Your task to perform on an android device: Open eBay Image 0: 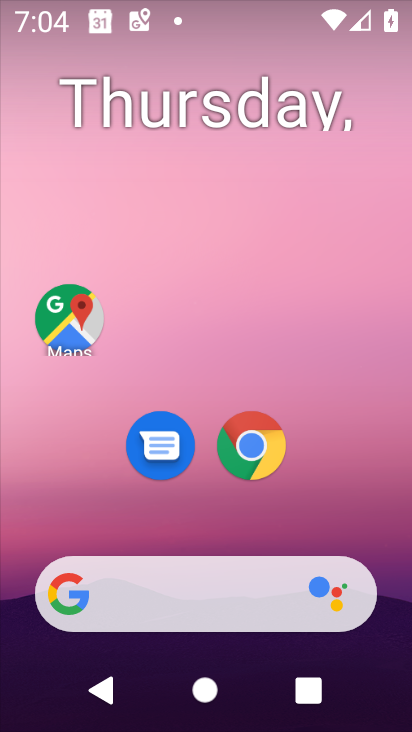
Step 0: drag from (388, 613) to (298, 29)
Your task to perform on an android device: Open eBay Image 1: 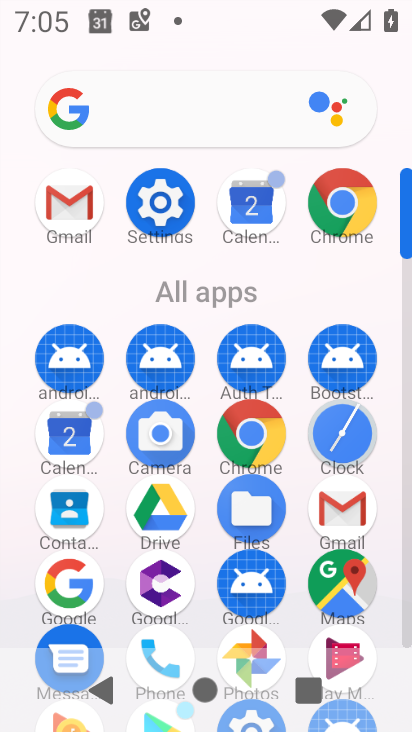
Step 1: click (66, 566)
Your task to perform on an android device: Open eBay Image 2: 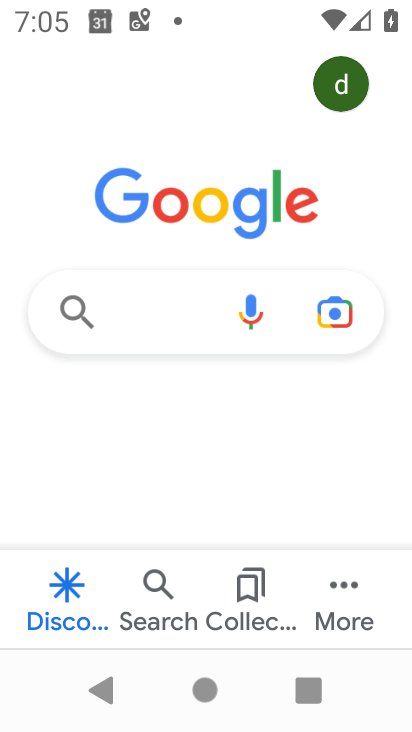
Step 2: click (135, 312)
Your task to perform on an android device: Open eBay Image 3: 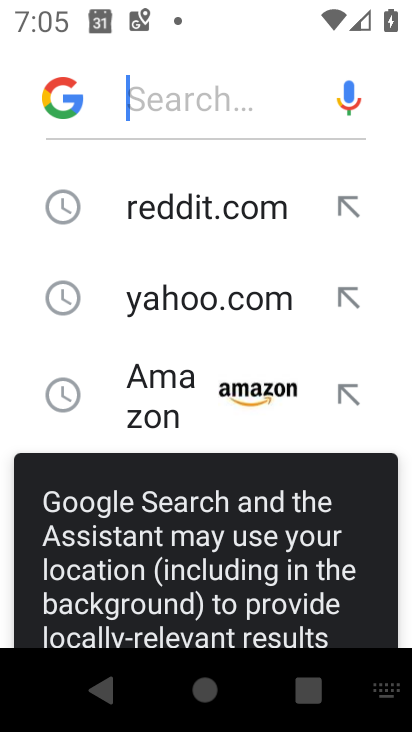
Step 3: drag from (125, 419) to (129, 118)
Your task to perform on an android device: Open eBay Image 4: 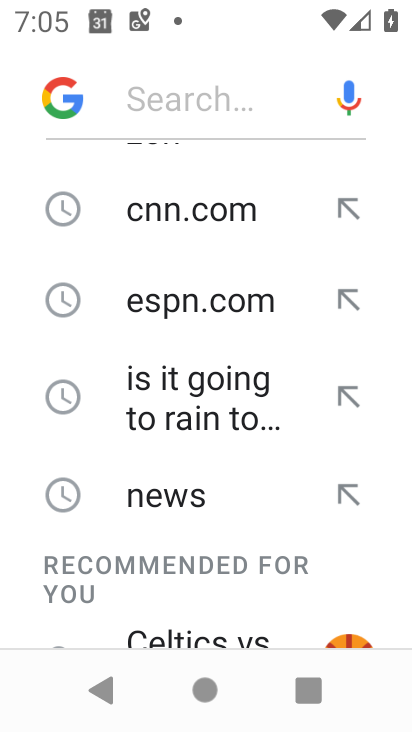
Step 4: drag from (135, 408) to (158, 130)
Your task to perform on an android device: Open eBay Image 5: 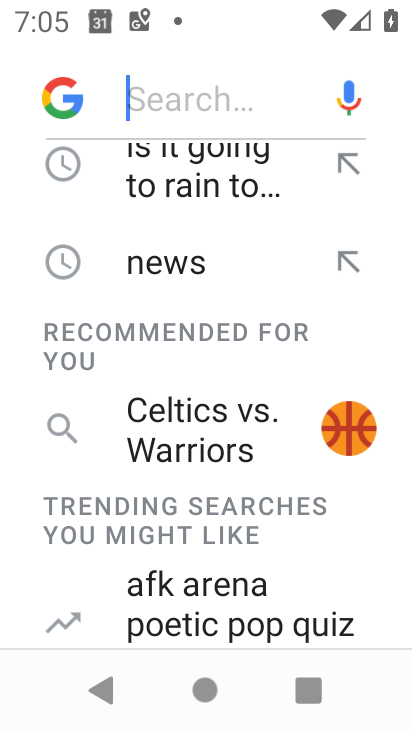
Step 5: drag from (158, 196) to (122, 539)
Your task to perform on an android device: Open eBay Image 6: 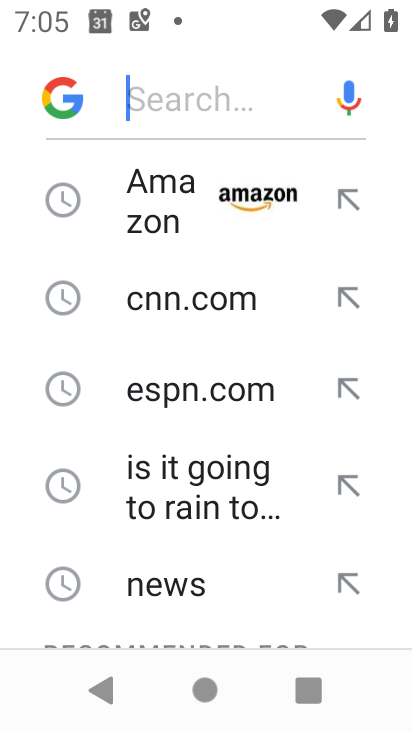
Step 6: drag from (108, 236) to (92, 542)
Your task to perform on an android device: Open eBay Image 7: 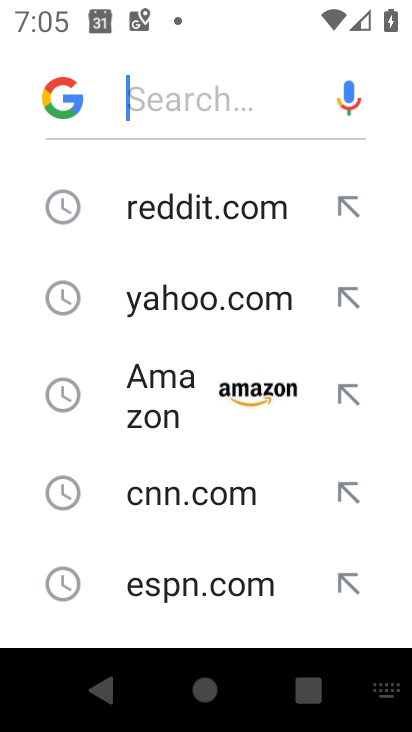
Step 7: type "ebay"
Your task to perform on an android device: Open eBay Image 8: 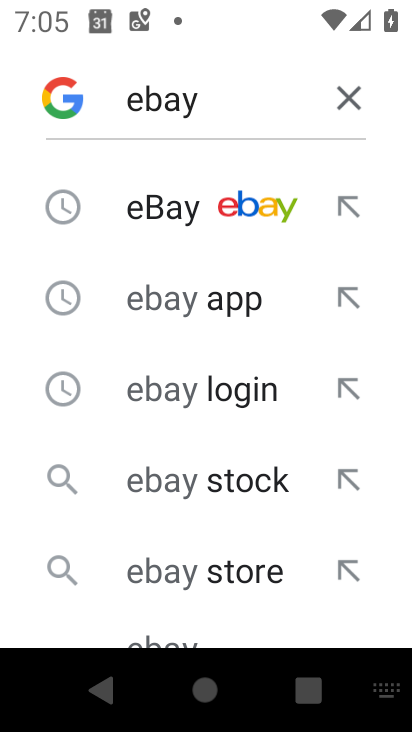
Step 8: click (158, 213)
Your task to perform on an android device: Open eBay Image 9: 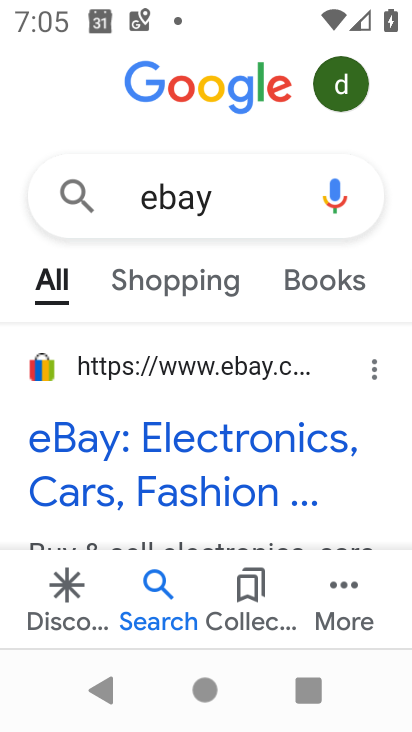
Step 9: task complete